Your task to perform on an android device: read, delete, or share a saved page in the chrome app Image 0: 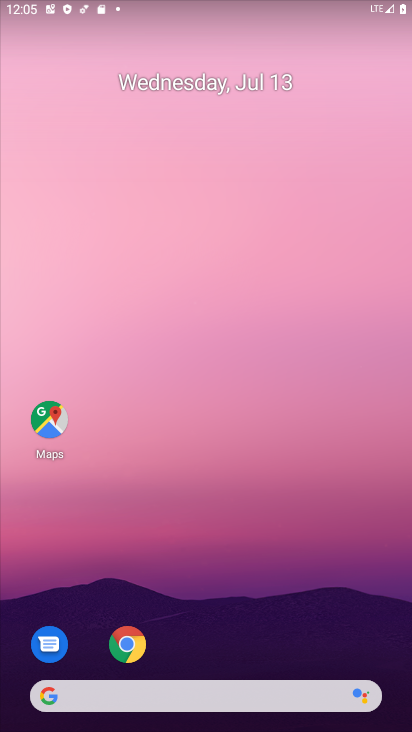
Step 0: click (127, 640)
Your task to perform on an android device: read, delete, or share a saved page in the chrome app Image 1: 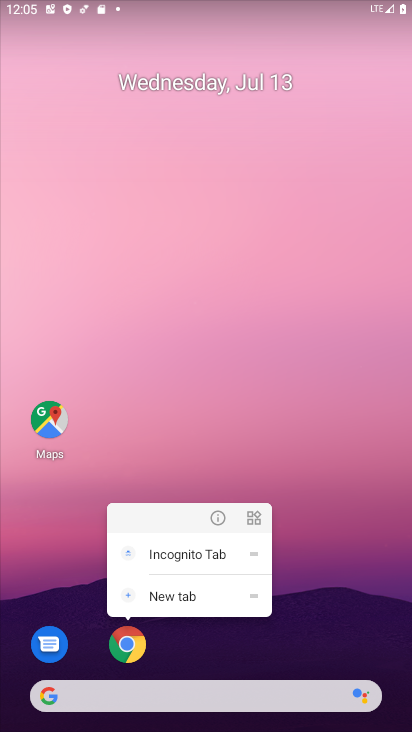
Step 1: click (137, 647)
Your task to perform on an android device: read, delete, or share a saved page in the chrome app Image 2: 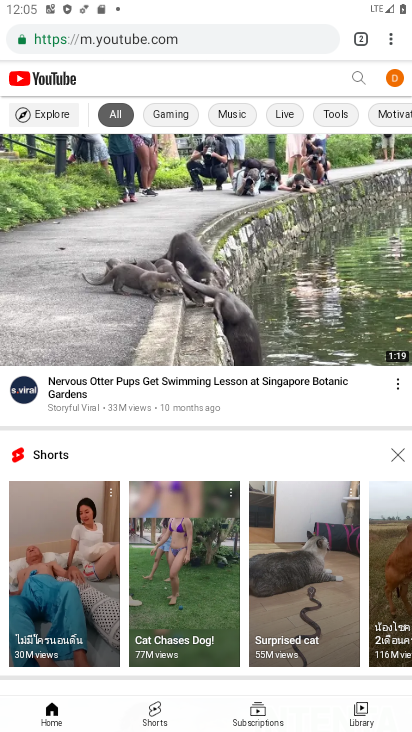
Step 2: click (386, 41)
Your task to perform on an android device: read, delete, or share a saved page in the chrome app Image 3: 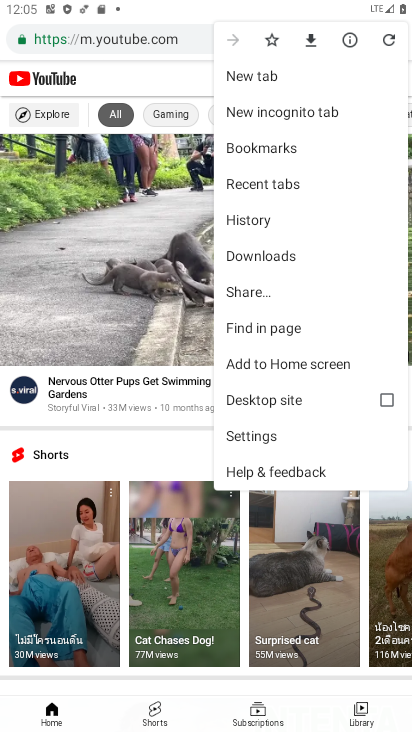
Step 3: click (267, 260)
Your task to perform on an android device: read, delete, or share a saved page in the chrome app Image 4: 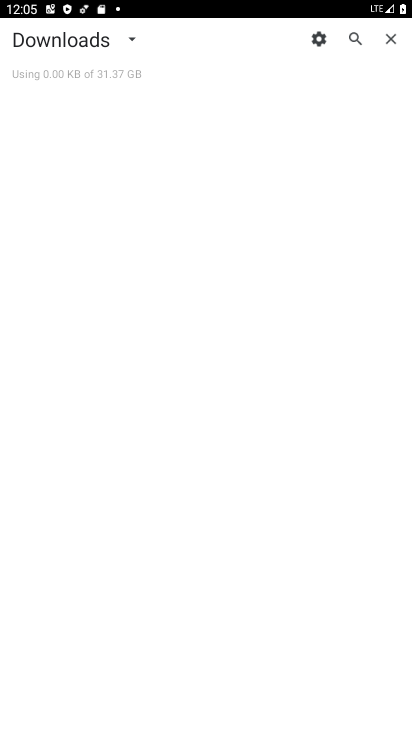
Step 4: task complete